Your task to perform on an android device: add a label to a message in the gmail app Image 0: 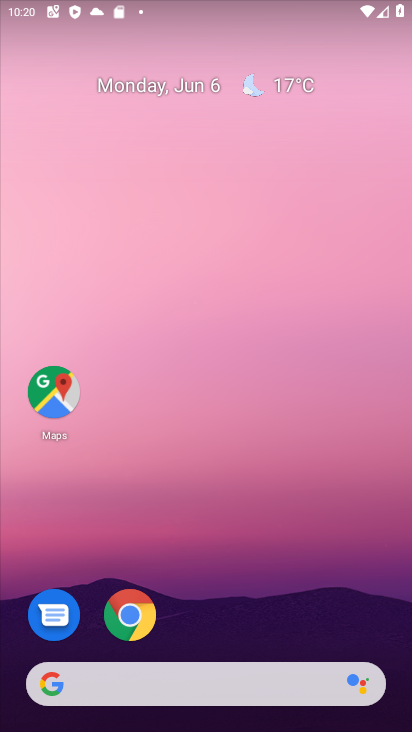
Step 0: drag from (225, 604) to (286, 44)
Your task to perform on an android device: add a label to a message in the gmail app Image 1: 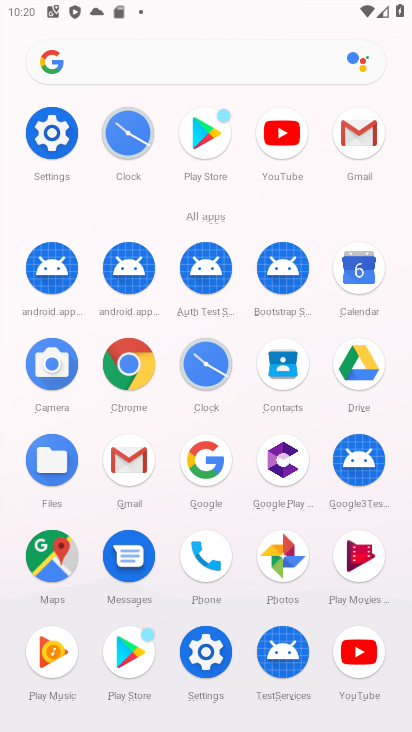
Step 1: click (362, 135)
Your task to perform on an android device: add a label to a message in the gmail app Image 2: 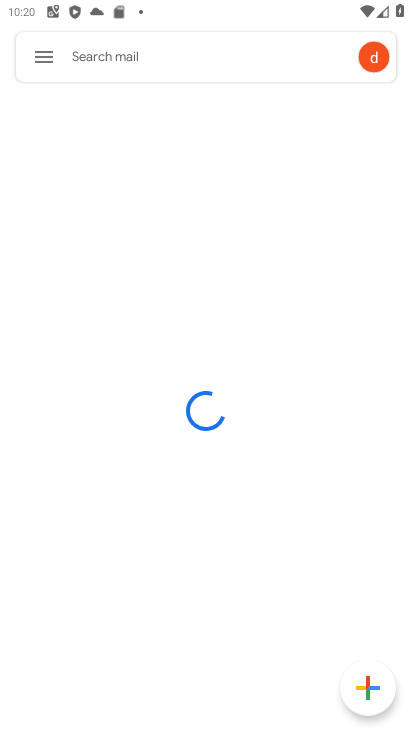
Step 2: click (48, 52)
Your task to perform on an android device: add a label to a message in the gmail app Image 3: 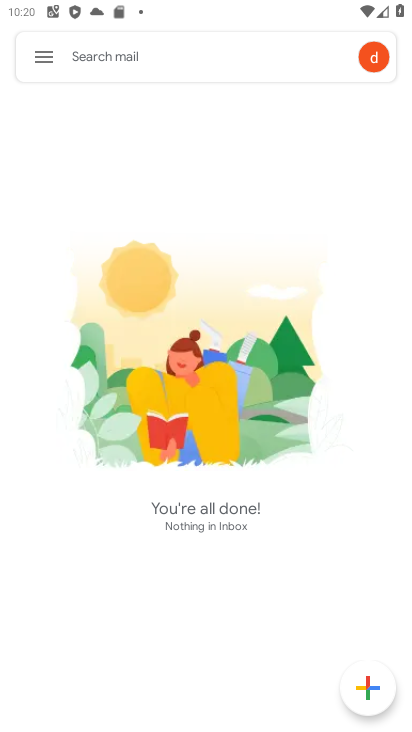
Step 3: click (43, 55)
Your task to perform on an android device: add a label to a message in the gmail app Image 4: 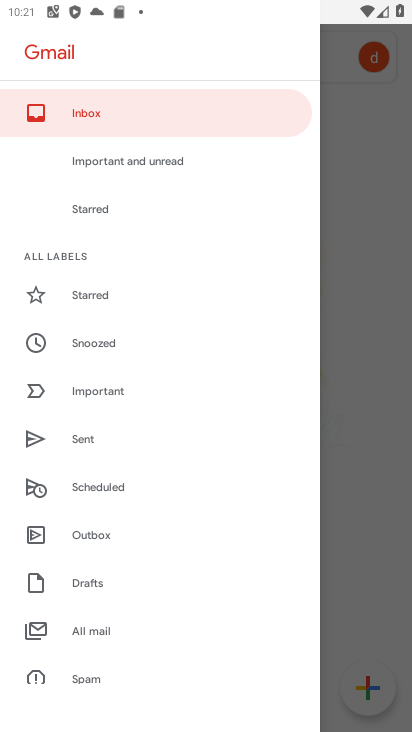
Step 4: click (104, 624)
Your task to perform on an android device: add a label to a message in the gmail app Image 5: 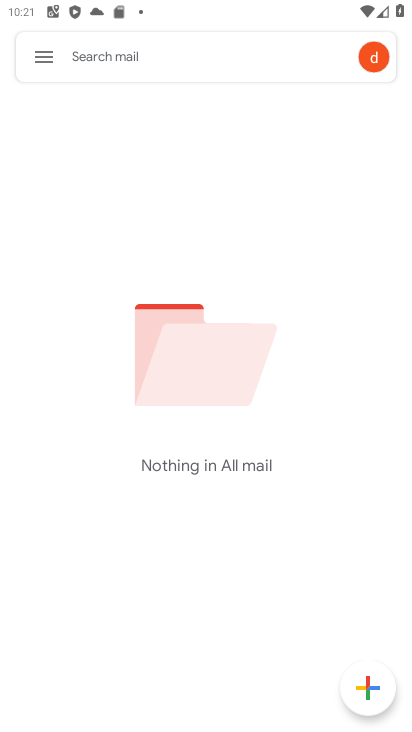
Step 5: task complete